Your task to perform on an android device: Go to calendar. Show me events next week Image 0: 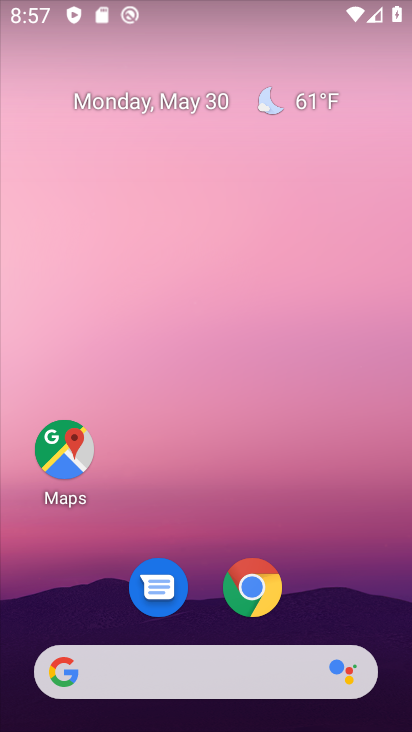
Step 0: drag from (240, 633) to (236, 27)
Your task to perform on an android device: Go to calendar. Show me events next week Image 1: 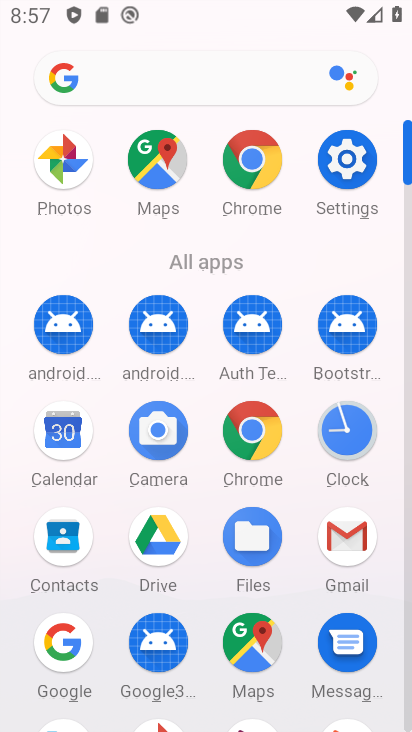
Step 1: click (69, 440)
Your task to perform on an android device: Go to calendar. Show me events next week Image 2: 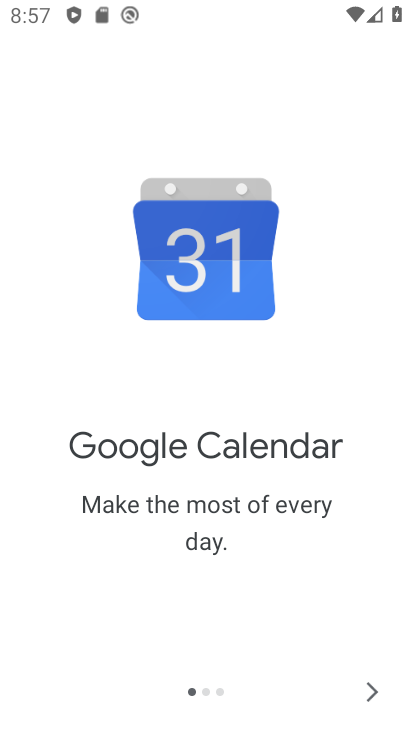
Step 2: click (368, 699)
Your task to perform on an android device: Go to calendar. Show me events next week Image 3: 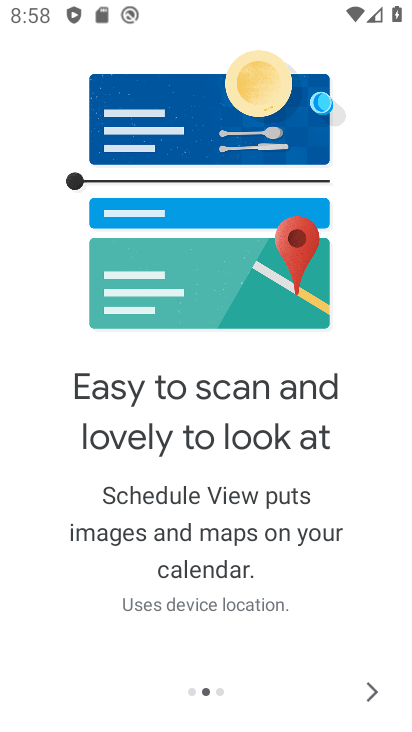
Step 3: click (379, 685)
Your task to perform on an android device: Go to calendar. Show me events next week Image 4: 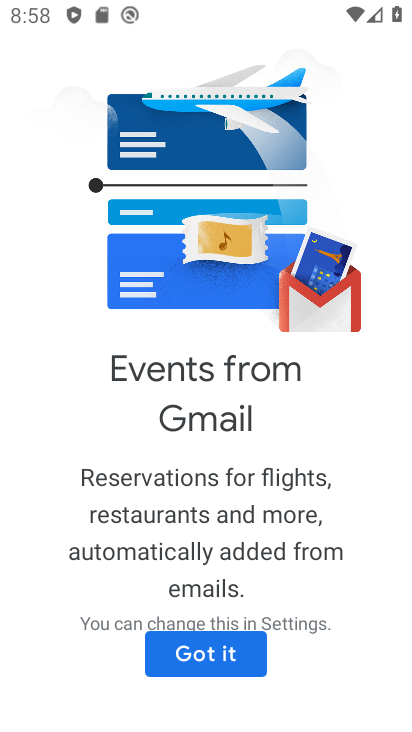
Step 4: click (214, 645)
Your task to perform on an android device: Go to calendar. Show me events next week Image 5: 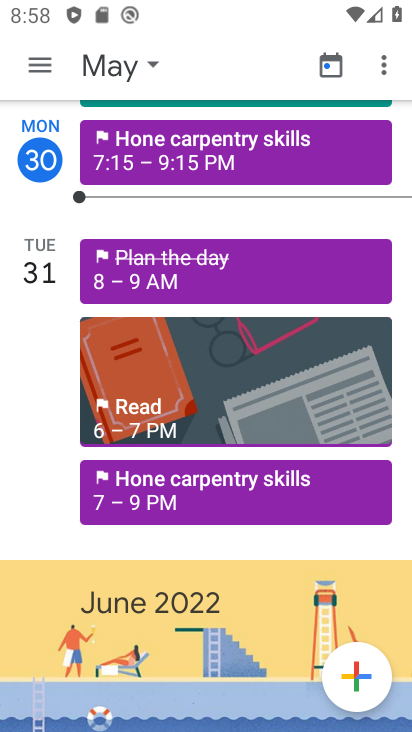
Step 5: click (52, 67)
Your task to perform on an android device: Go to calendar. Show me events next week Image 6: 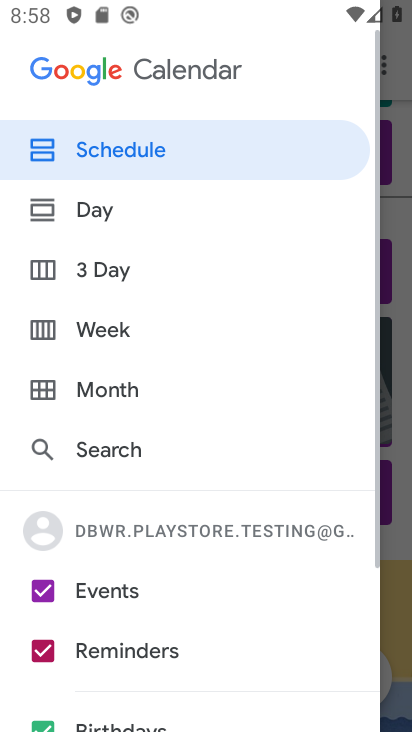
Step 6: click (115, 318)
Your task to perform on an android device: Go to calendar. Show me events next week Image 7: 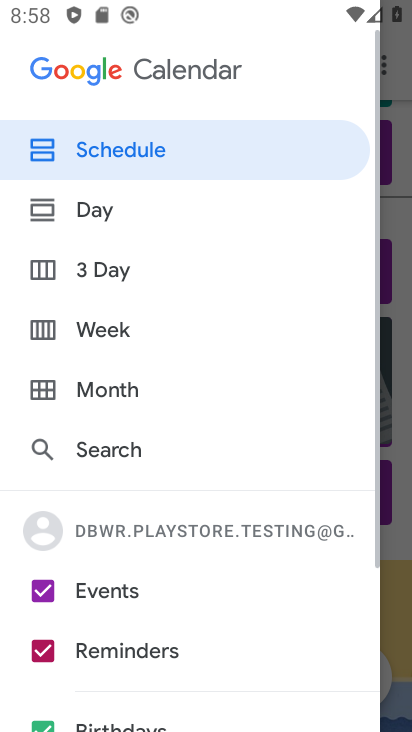
Step 7: click (119, 327)
Your task to perform on an android device: Go to calendar. Show me events next week Image 8: 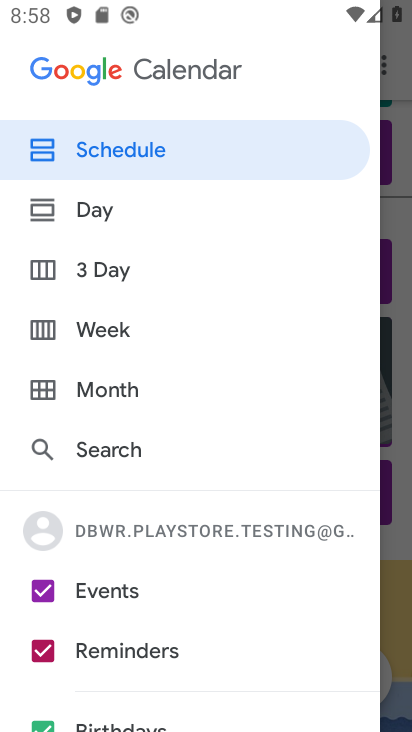
Step 8: click (95, 324)
Your task to perform on an android device: Go to calendar. Show me events next week Image 9: 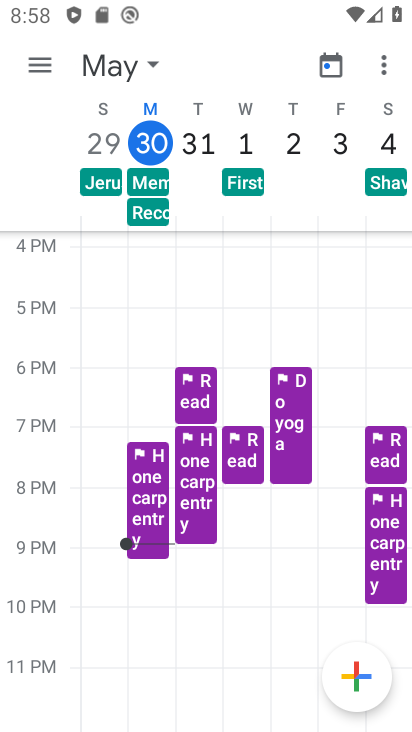
Step 9: task complete